Your task to perform on an android device: Clear the shopping cart on newegg. Add razer thresher to the cart on newegg, then select checkout. Image 0: 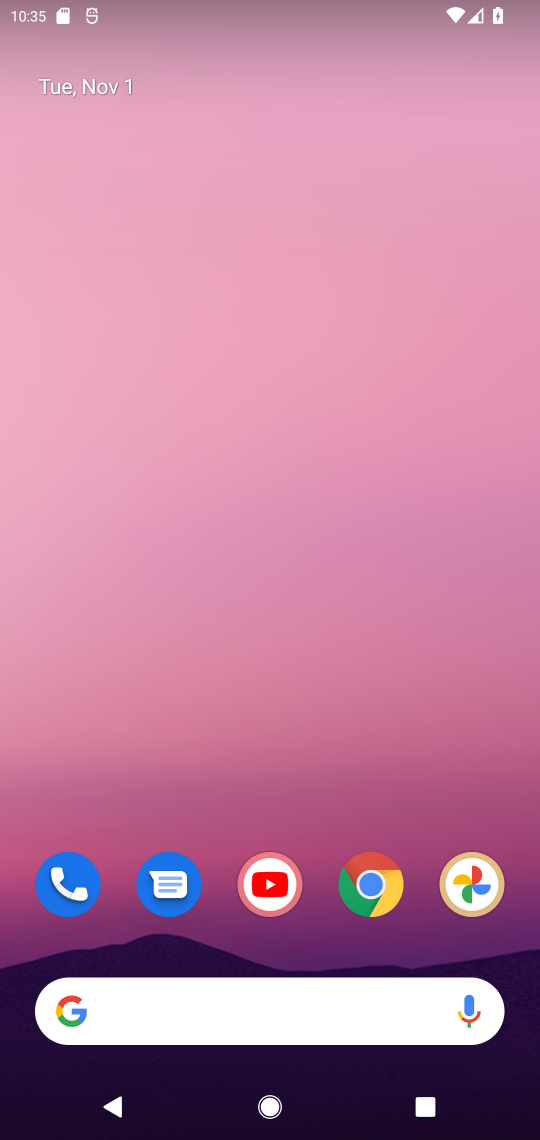
Step 0: click (462, 761)
Your task to perform on an android device: Clear the shopping cart on newegg. Add razer thresher to the cart on newegg, then select checkout. Image 1: 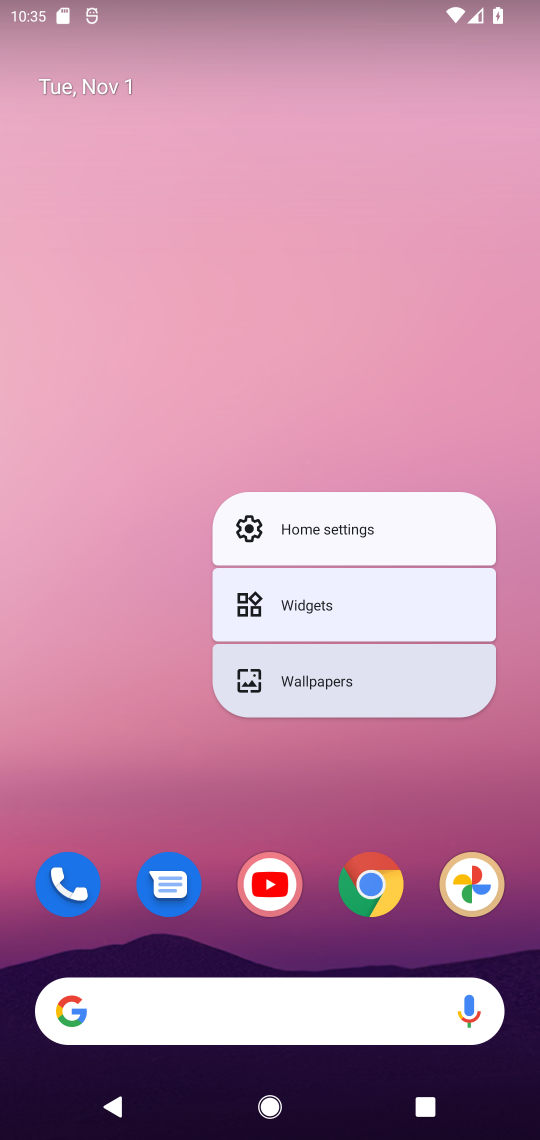
Step 1: click (365, 896)
Your task to perform on an android device: Clear the shopping cart on newegg. Add razer thresher to the cart on newegg, then select checkout. Image 2: 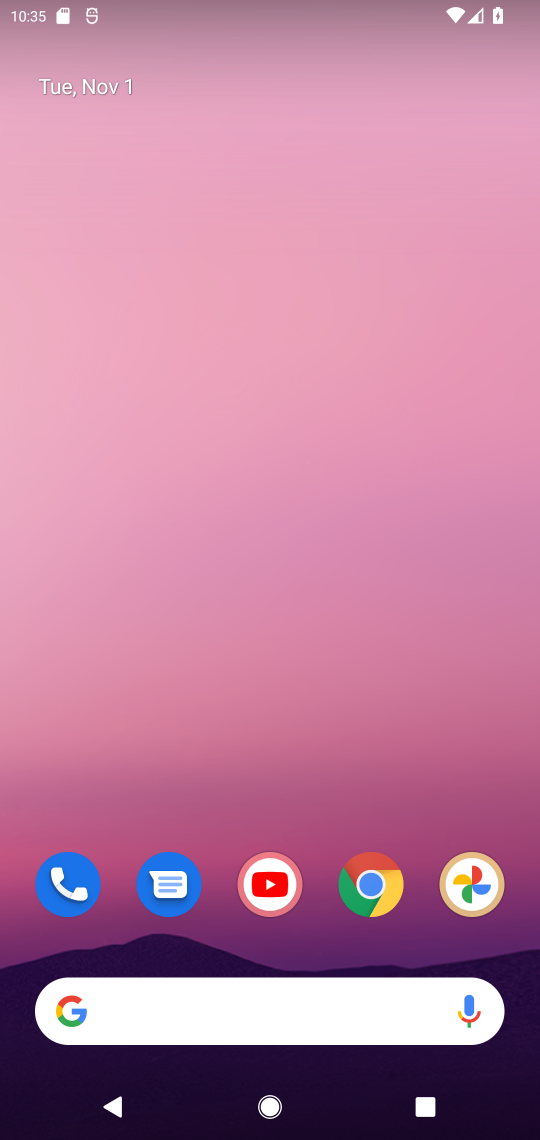
Step 2: click (366, 891)
Your task to perform on an android device: Clear the shopping cart on newegg. Add razer thresher to the cart on newegg, then select checkout. Image 3: 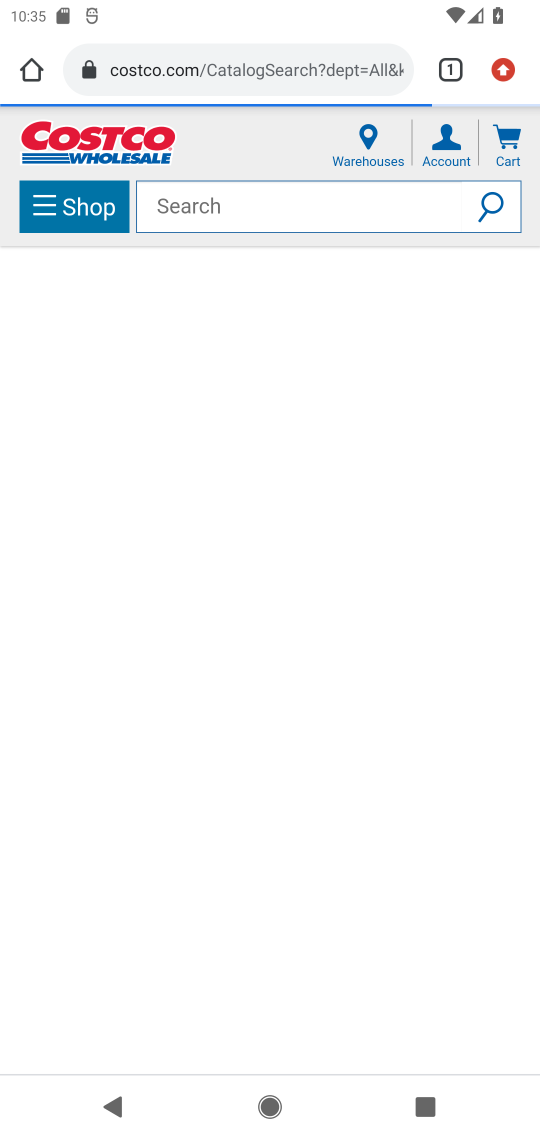
Step 3: click (235, 75)
Your task to perform on an android device: Clear the shopping cart on newegg. Add razer thresher to the cart on newegg, then select checkout. Image 4: 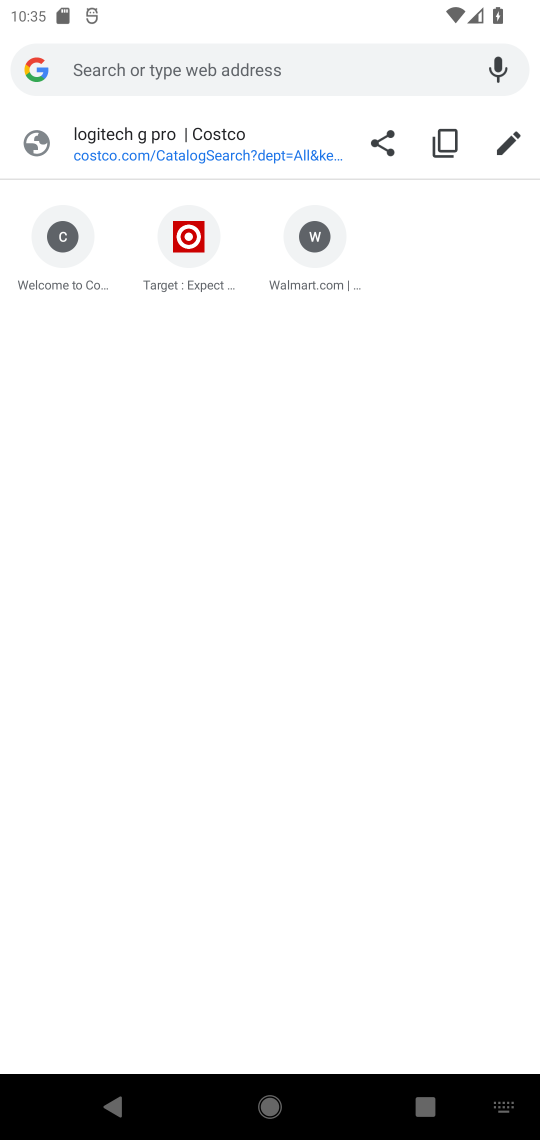
Step 4: type "newegg.com"
Your task to perform on an android device: Clear the shopping cart on newegg. Add razer thresher to the cart on newegg, then select checkout. Image 5: 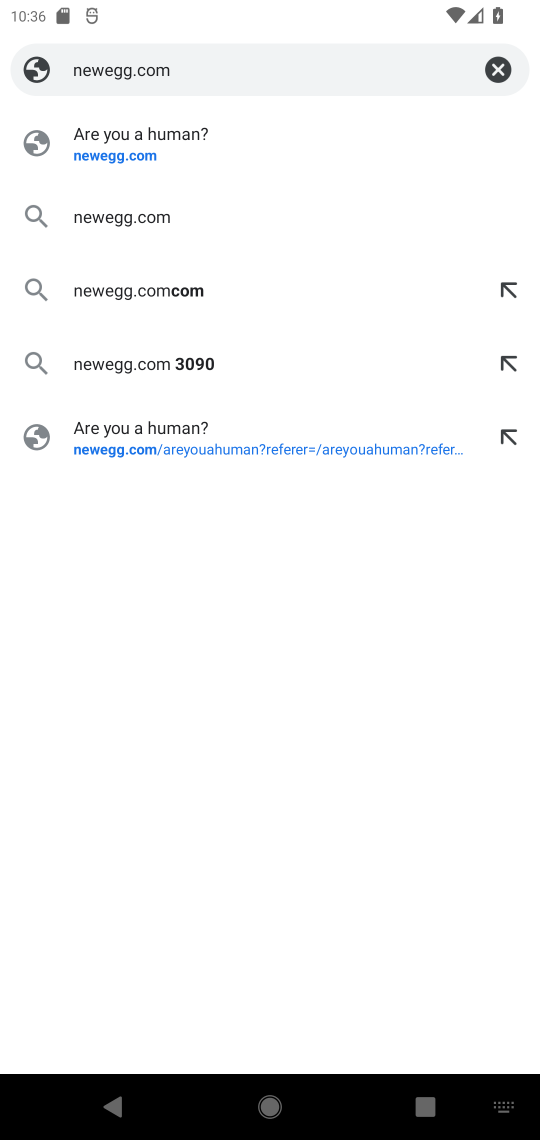
Step 5: click (134, 214)
Your task to perform on an android device: Clear the shopping cart on newegg. Add razer thresher to the cart on newegg, then select checkout. Image 6: 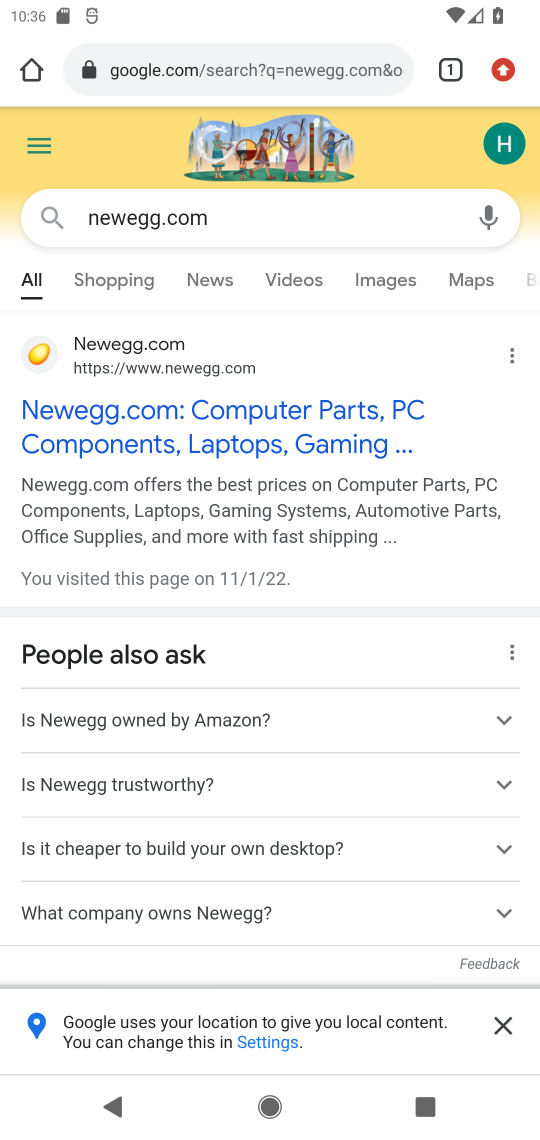
Step 6: click (139, 369)
Your task to perform on an android device: Clear the shopping cart on newegg. Add razer thresher to the cart on newegg, then select checkout. Image 7: 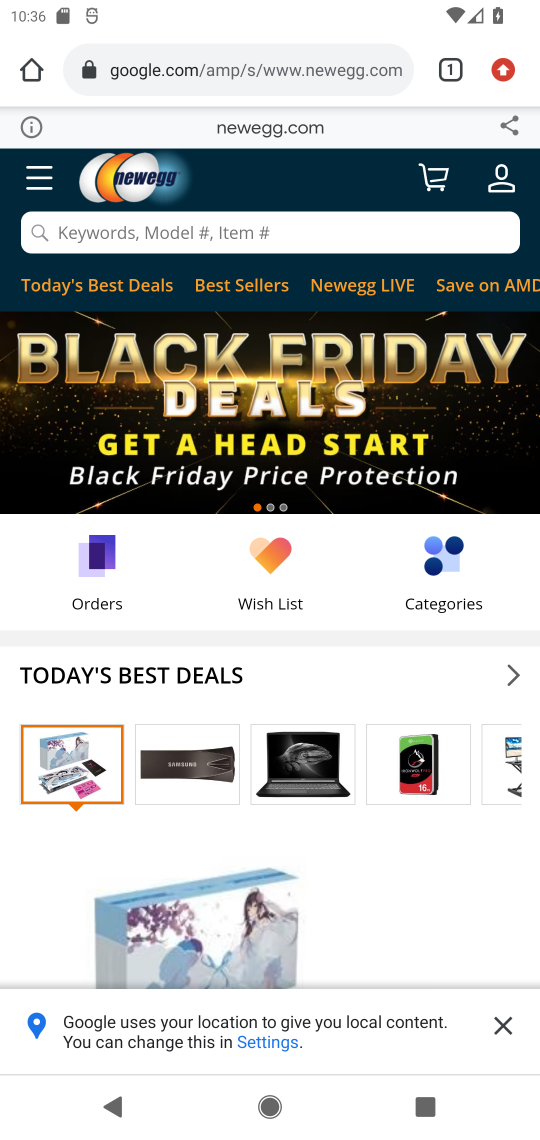
Step 7: click (440, 177)
Your task to perform on an android device: Clear the shopping cart on newegg. Add razer thresher to the cart on newegg, then select checkout. Image 8: 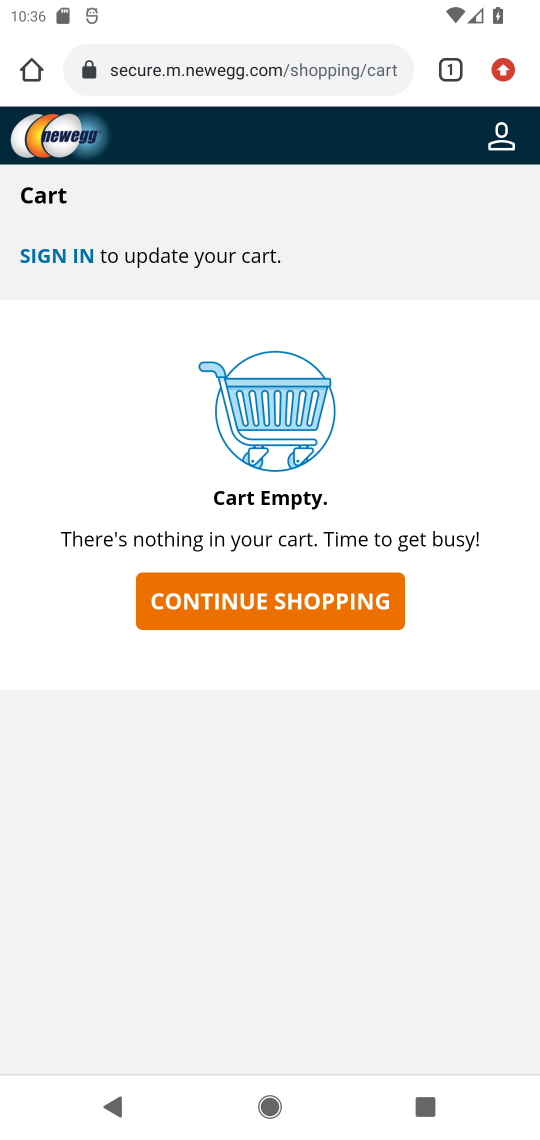
Step 8: press back button
Your task to perform on an android device: Clear the shopping cart on newegg. Add razer thresher to the cart on newegg, then select checkout. Image 9: 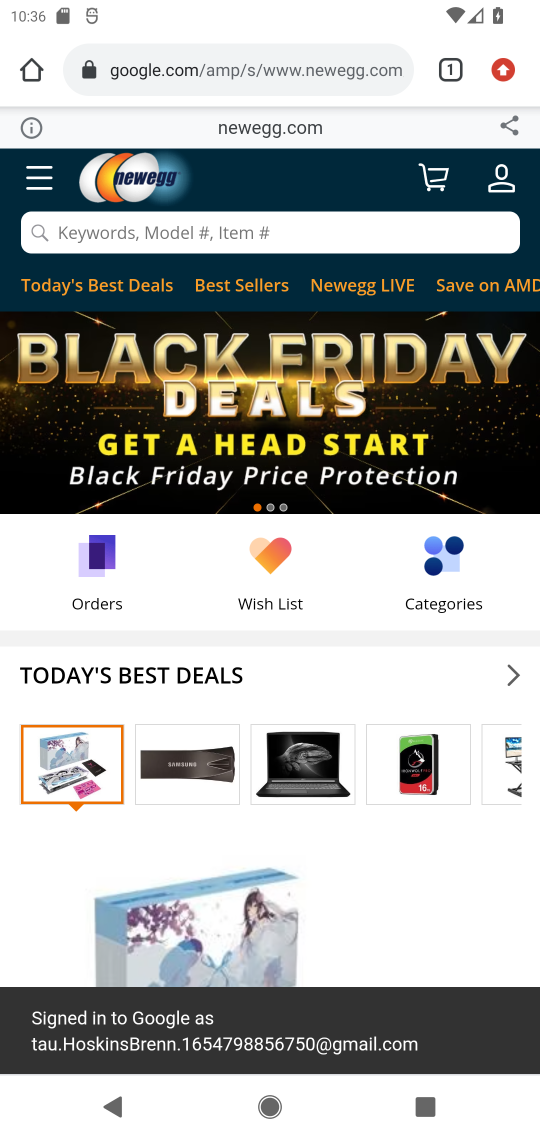
Step 9: click (128, 226)
Your task to perform on an android device: Clear the shopping cart on newegg. Add razer thresher to the cart on newegg, then select checkout. Image 10: 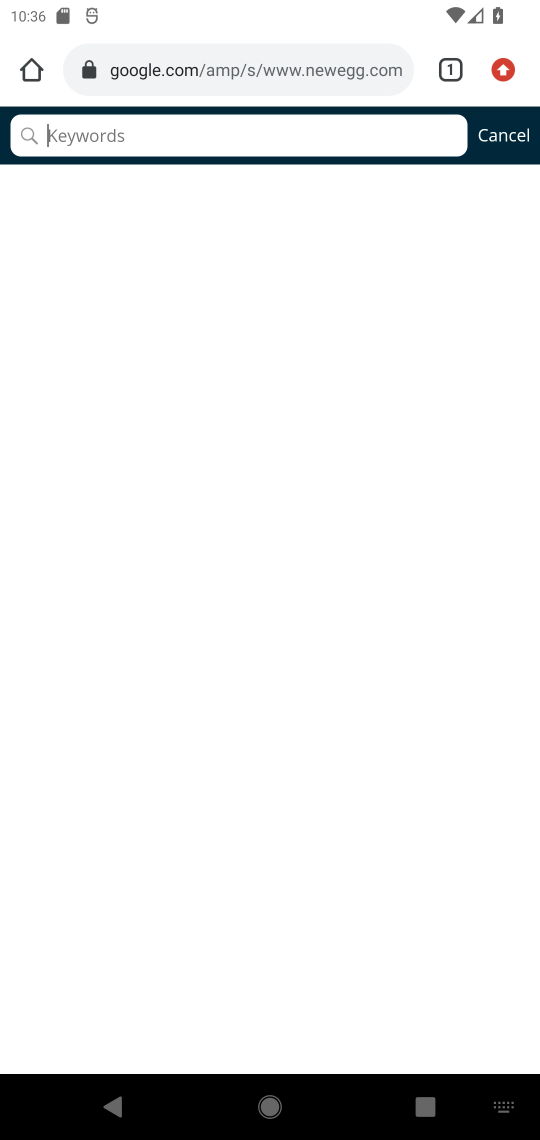
Step 10: type "razer thresher"
Your task to perform on an android device: Clear the shopping cart on newegg. Add razer thresher to the cart on newegg, then select checkout. Image 11: 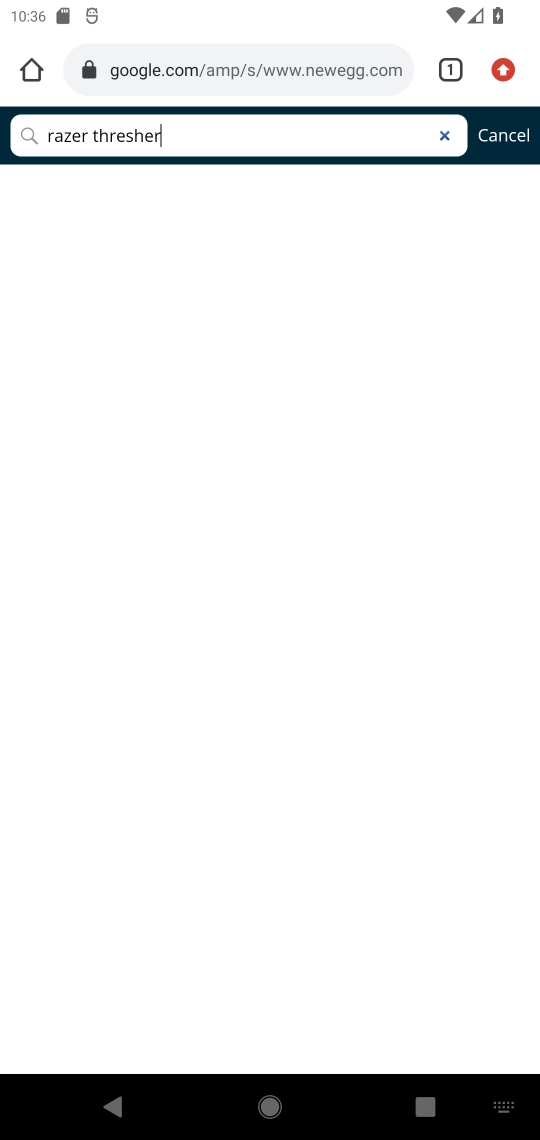
Step 11: task complete